Your task to perform on an android device: open the mobile data screen to see how much data has been used Image 0: 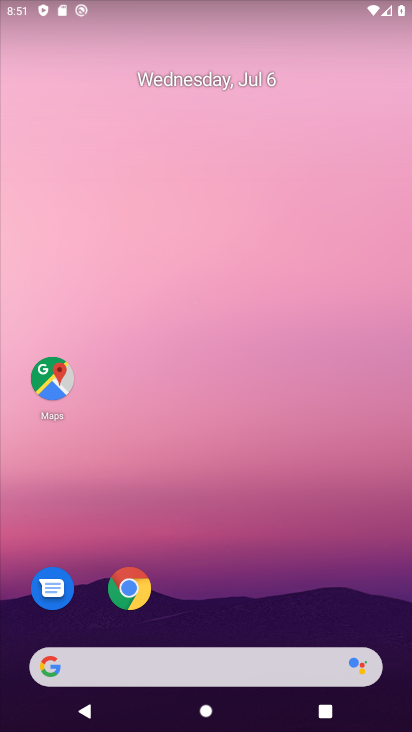
Step 0: drag from (173, 621) to (215, 88)
Your task to perform on an android device: open the mobile data screen to see how much data has been used Image 1: 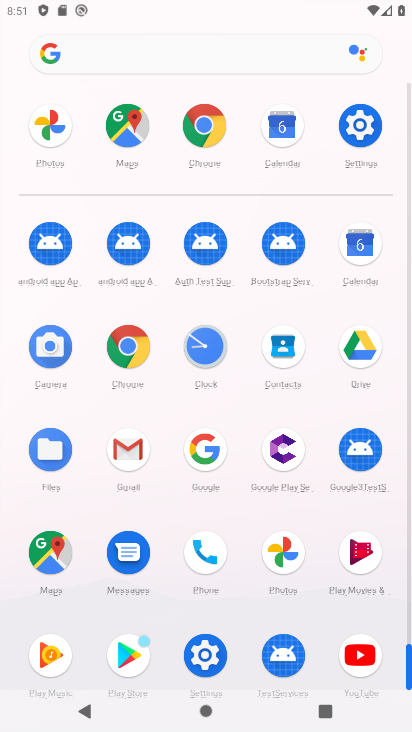
Step 1: click (211, 659)
Your task to perform on an android device: open the mobile data screen to see how much data has been used Image 2: 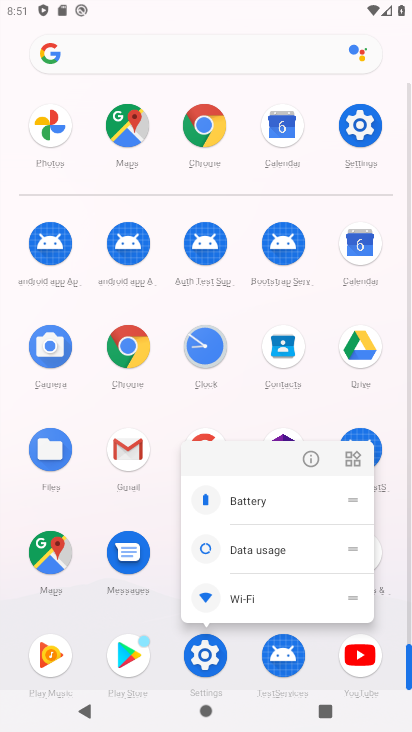
Step 2: click (250, 550)
Your task to perform on an android device: open the mobile data screen to see how much data has been used Image 3: 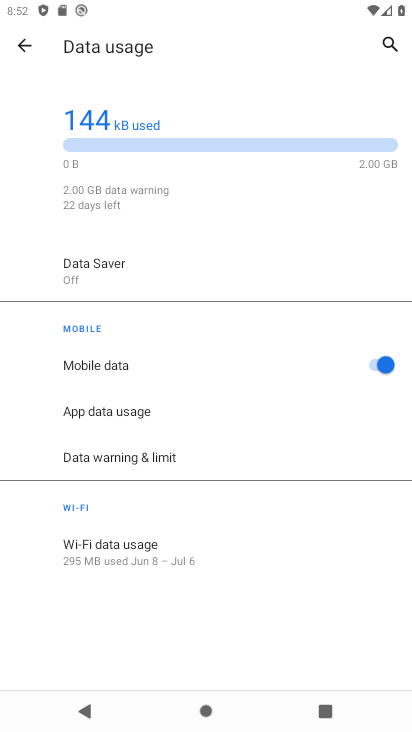
Step 3: task complete